Your task to perform on an android device: toggle sleep mode Image 0: 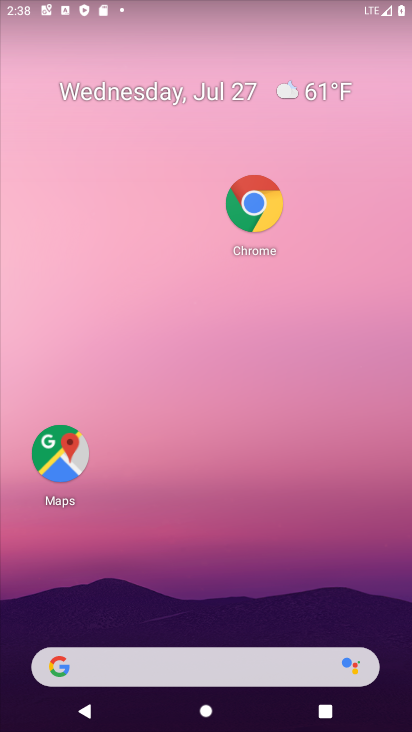
Step 0: drag from (203, 623) to (280, 102)
Your task to perform on an android device: toggle sleep mode Image 1: 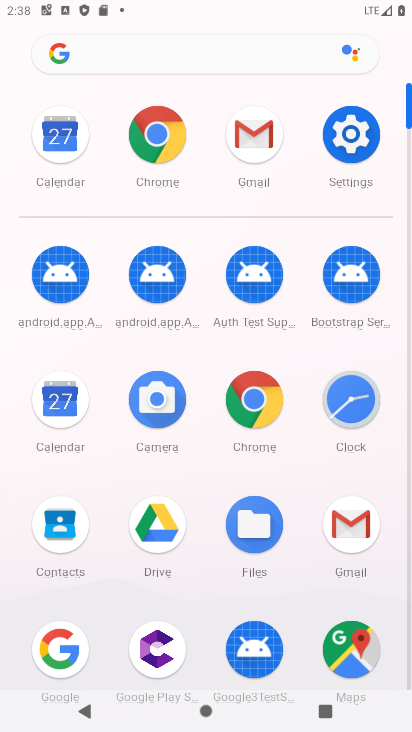
Step 1: click (371, 136)
Your task to perform on an android device: toggle sleep mode Image 2: 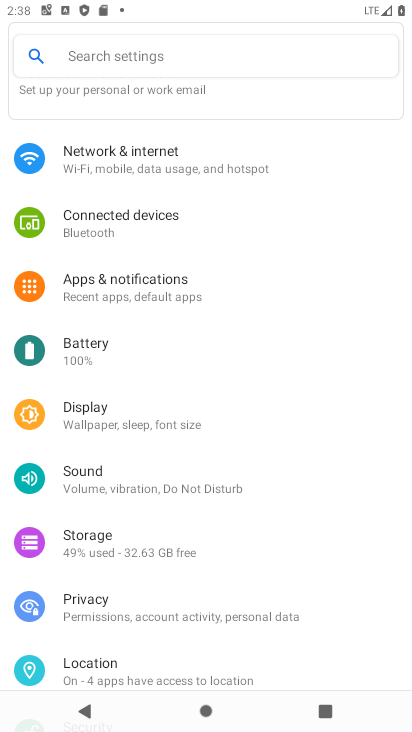
Step 2: click (139, 405)
Your task to perform on an android device: toggle sleep mode Image 3: 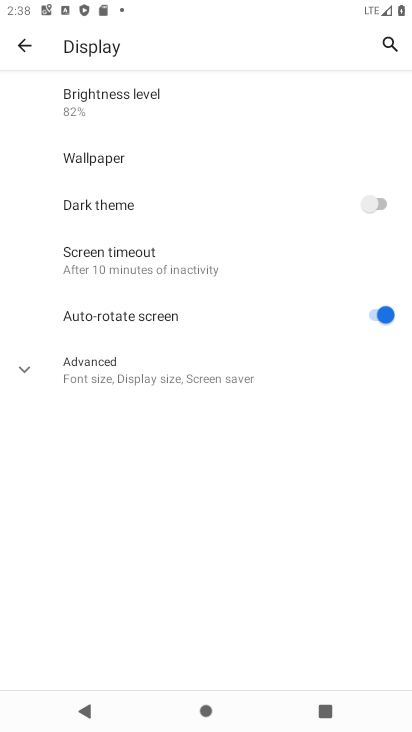
Step 3: click (145, 270)
Your task to perform on an android device: toggle sleep mode Image 4: 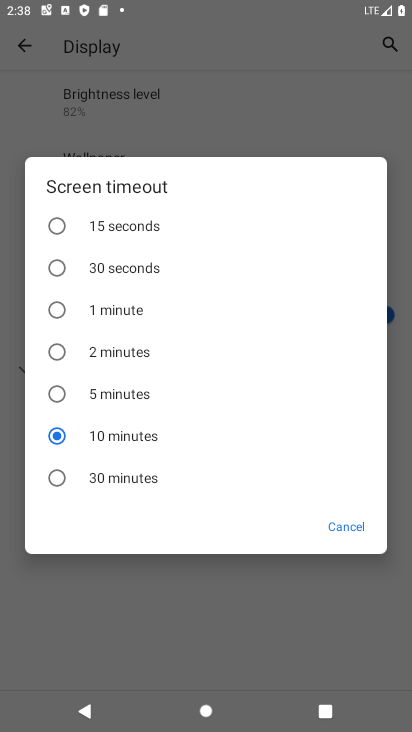
Step 4: click (141, 293)
Your task to perform on an android device: toggle sleep mode Image 5: 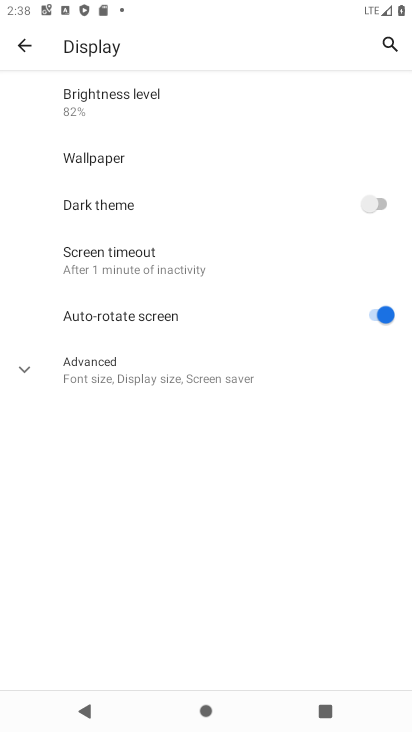
Step 5: task complete